Your task to perform on an android device: turn on wifi Image 0: 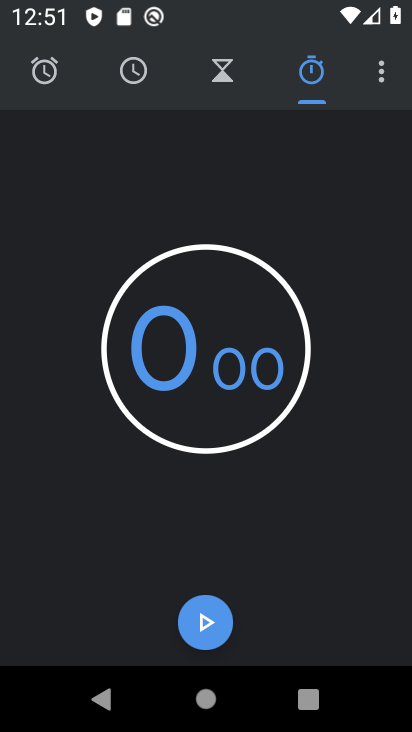
Step 0: press home button
Your task to perform on an android device: turn on wifi Image 1: 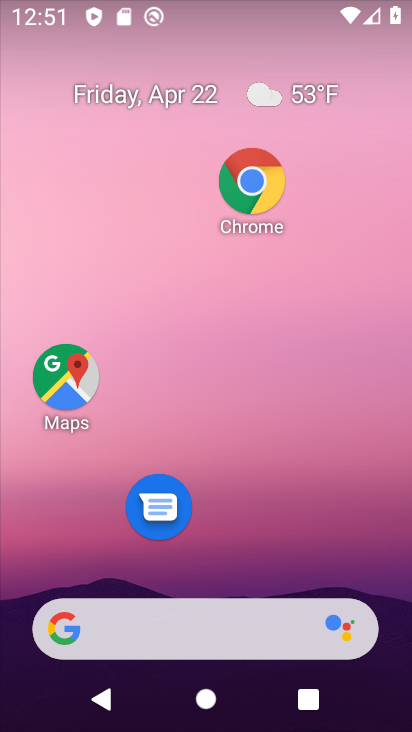
Step 1: drag from (273, 512) to (260, 98)
Your task to perform on an android device: turn on wifi Image 2: 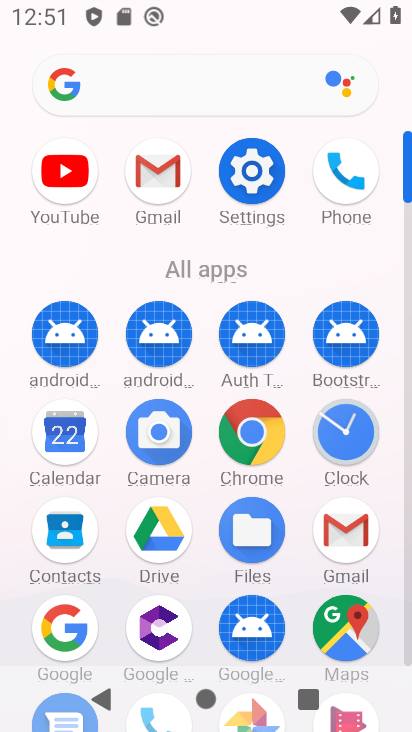
Step 2: click (246, 189)
Your task to perform on an android device: turn on wifi Image 3: 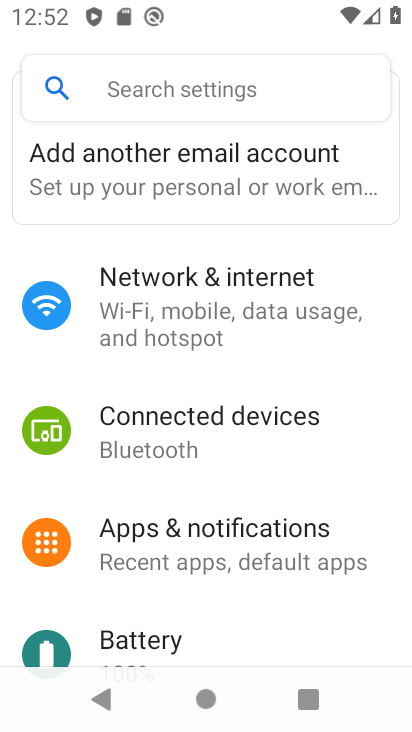
Step 3: task complete